Your task to perform on an android device: Open settings on Google Maps Image 0: 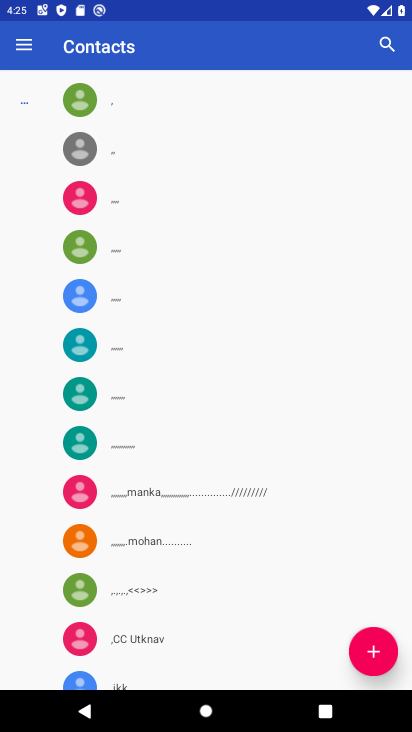
Step 0: press home button
Your task to perform on an android device: Open settings on Google Maps Image 1: 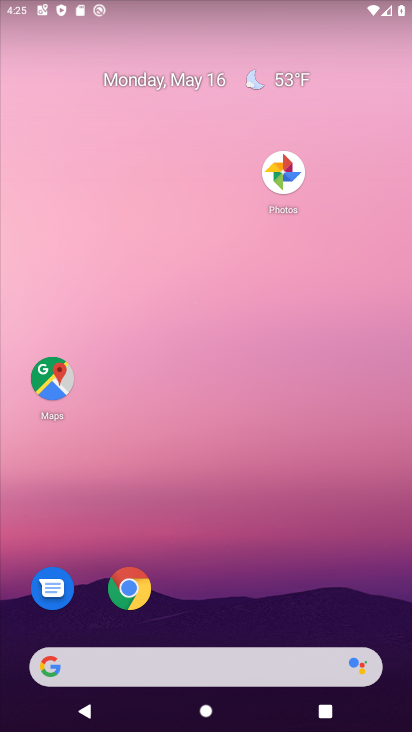
Step 1: click (68, 386)
Your task to perform on an android device: Open settings on Google Maps Image 2: 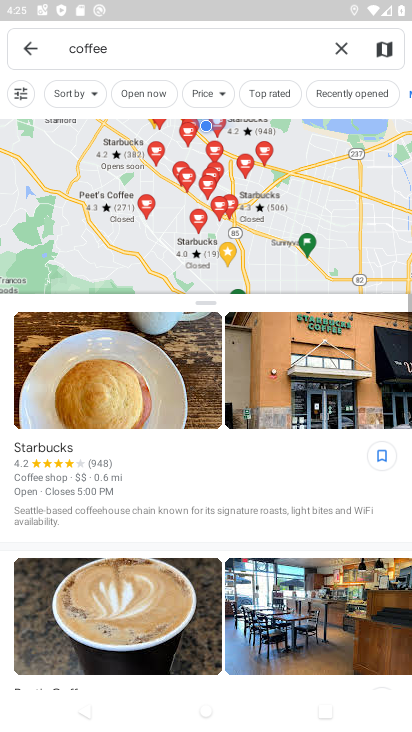
Step 2: click (37, 44)
Your task to perform on an android device: Open settings on Google Maps Image 3: 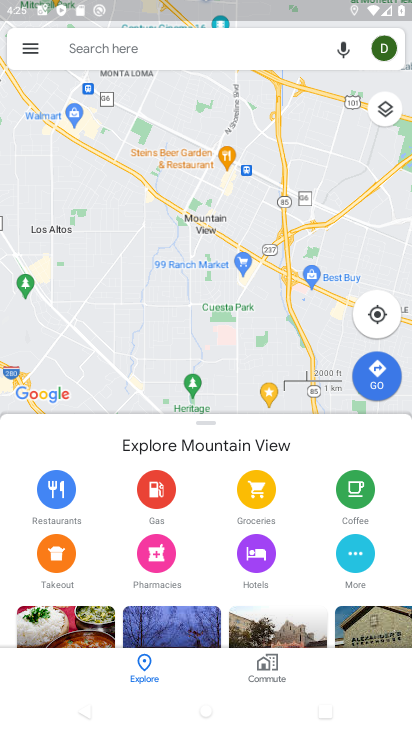
Step 3: click (37, 44)
Your task to perform on an android device: Open settings on Google Maps Image 4: 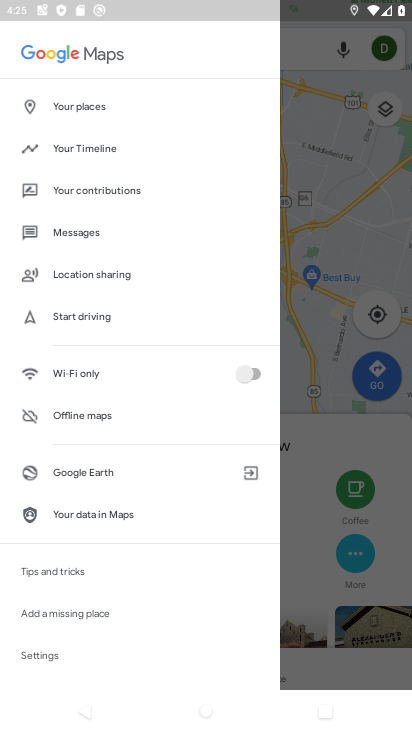
Step 4: drag from (109, 602) to (167, 181)
Your task to perform on an android device: Open settings on Google Maps Image 5: 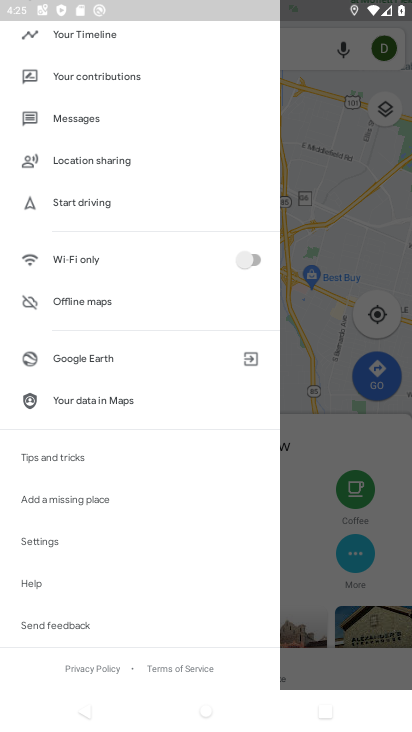
Step 5: click (77, 548)
Your task to perform on an android device: Open settings on Google Maps Image 6: 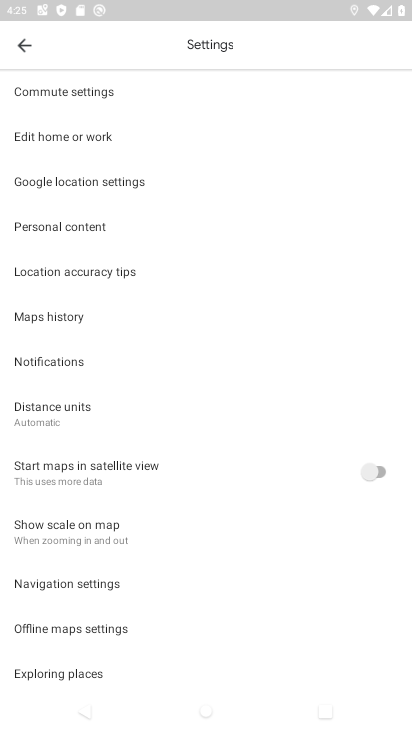
Step 6: task complete